Your task to perform on an android device: Open the web browser Image 0: 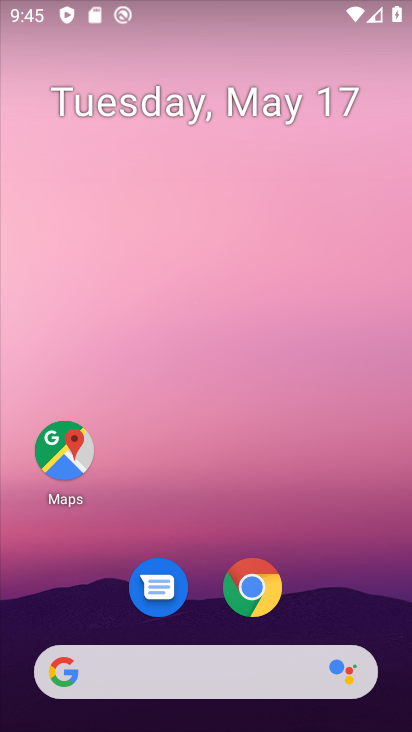
Step 0: click (263, 583)
Your task to perform on an android device: Open the web browser Image 1: 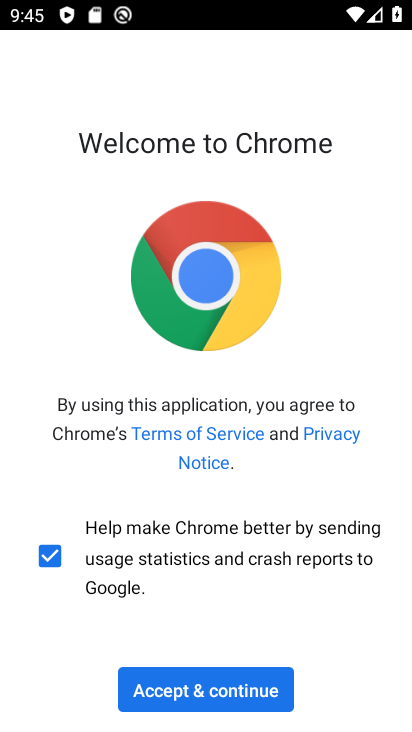
Step 1: click (217, 695)
Your task to perform on an android device: Open the web browser Image 2: 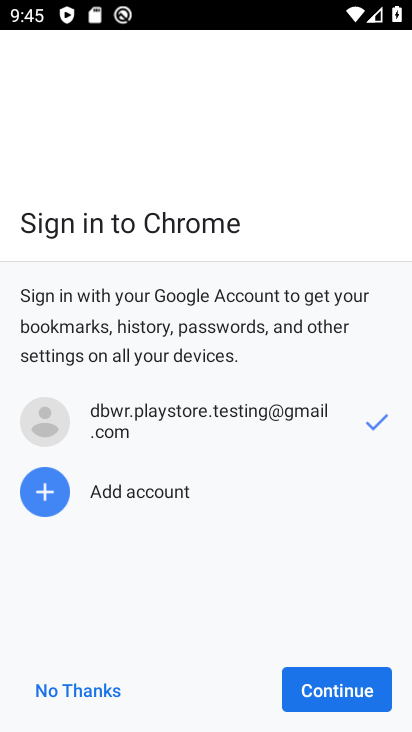
Step 2: task complete